Your task to perform on an android device: Search for a cheap bike on Walmart Image 0: 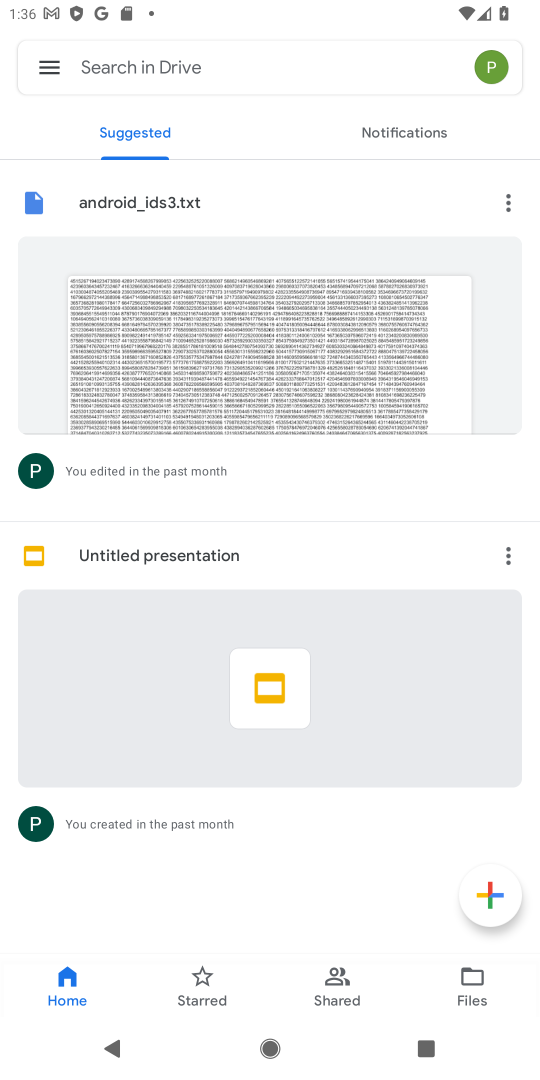
Step 0: press home button
Your task to perform on an android device: Search for a cheap bike on Walmart Image 1: 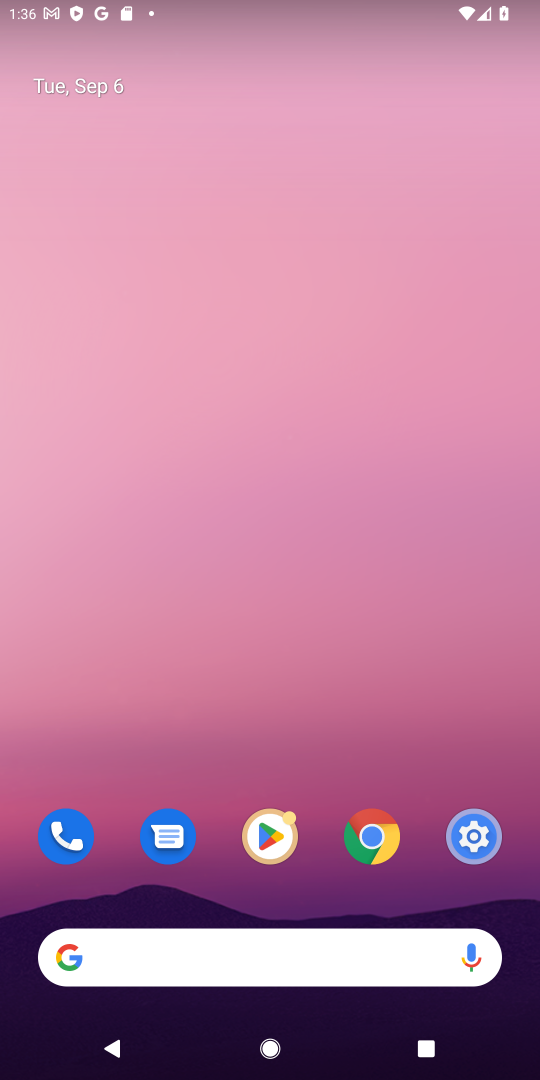
Step 1: click (220, 962)
Your task to perform on an android device: Search for a cheap bike on Walmart Image 2: 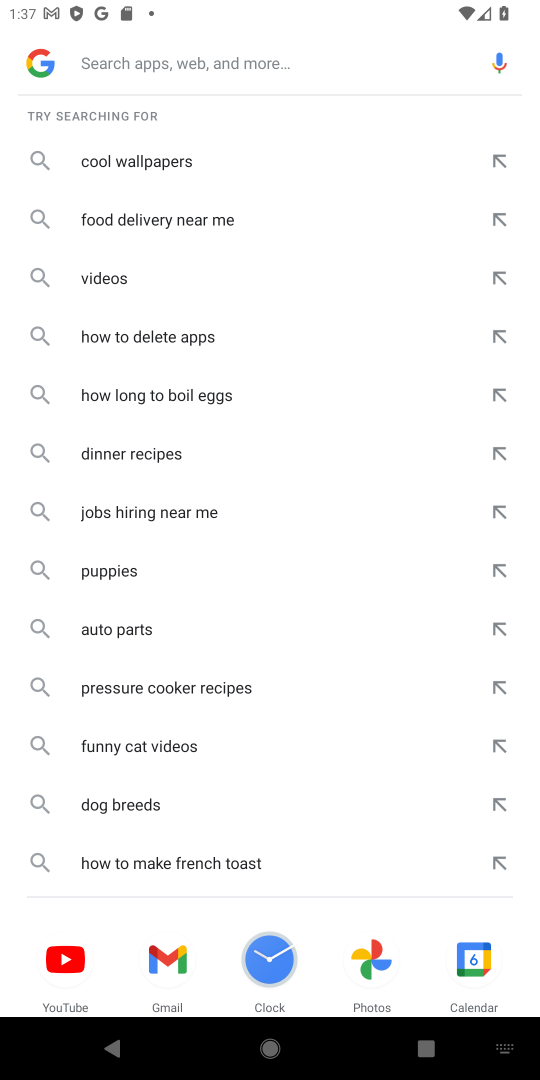
Step 2: type "walmart"
Your task to perform on an android device: Search for a cheap bike on Walmart Image 3: 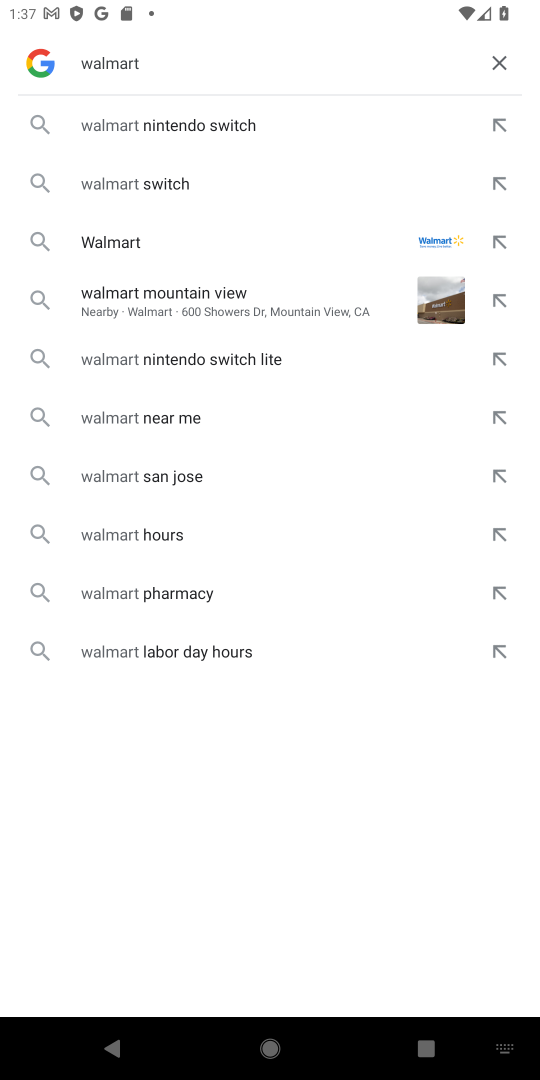
Step 3: click (114, 238)
Your task to perform on an android device: Search for a cheap bike on Walmart Image 4: 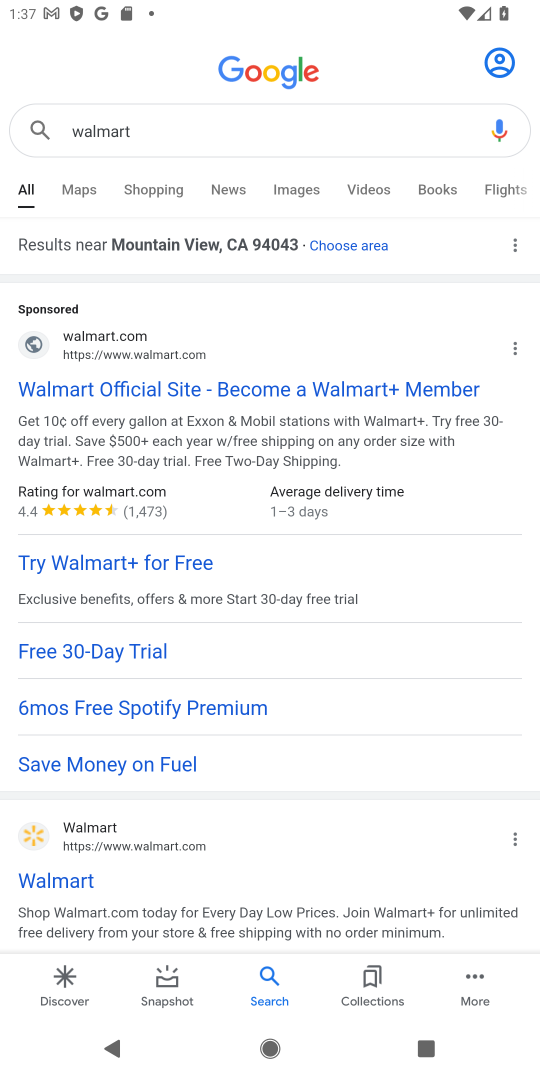
Step 4: click (54, 878)
Your task to perform on an android device: Search for a cheap bike on Walmart Image 5: 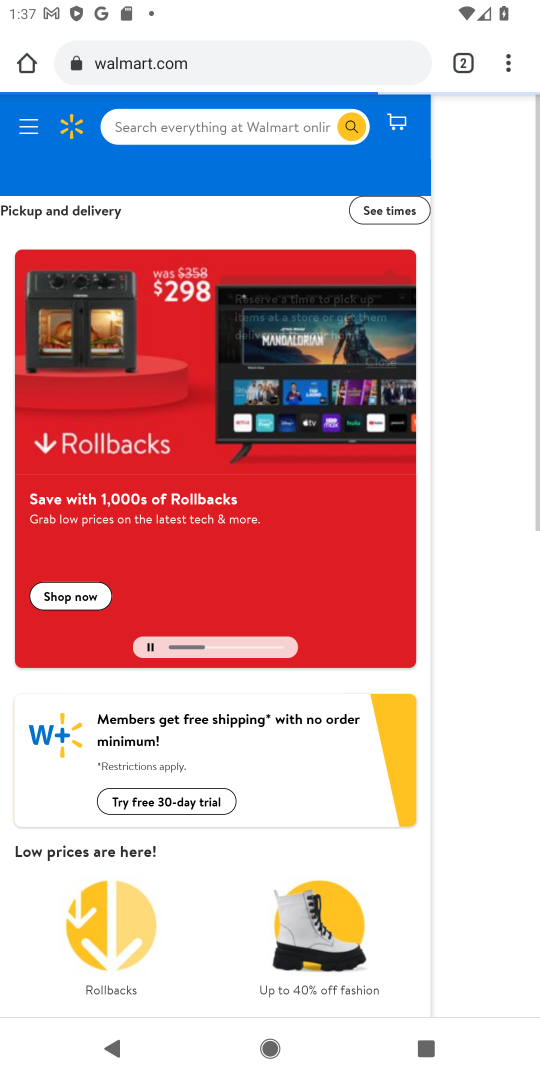
Step 5: click (204, 127)
Your task to perform on an android device: Search for a cheap bike on Walmart Image 6: 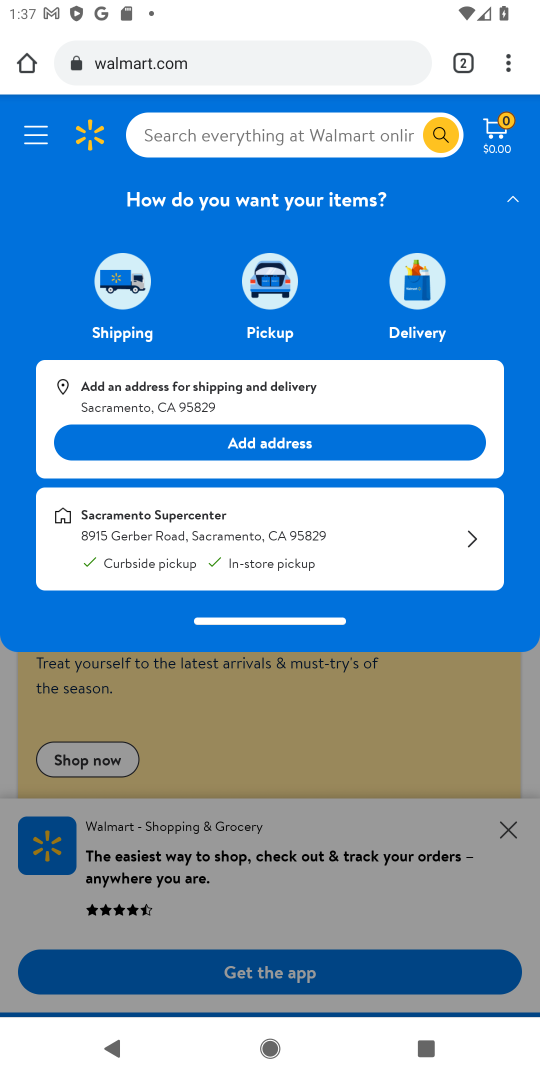
Step 6: click (241, 129)
Your task to perform on an android device: Search for a cheap bike on Walmart Image 7: 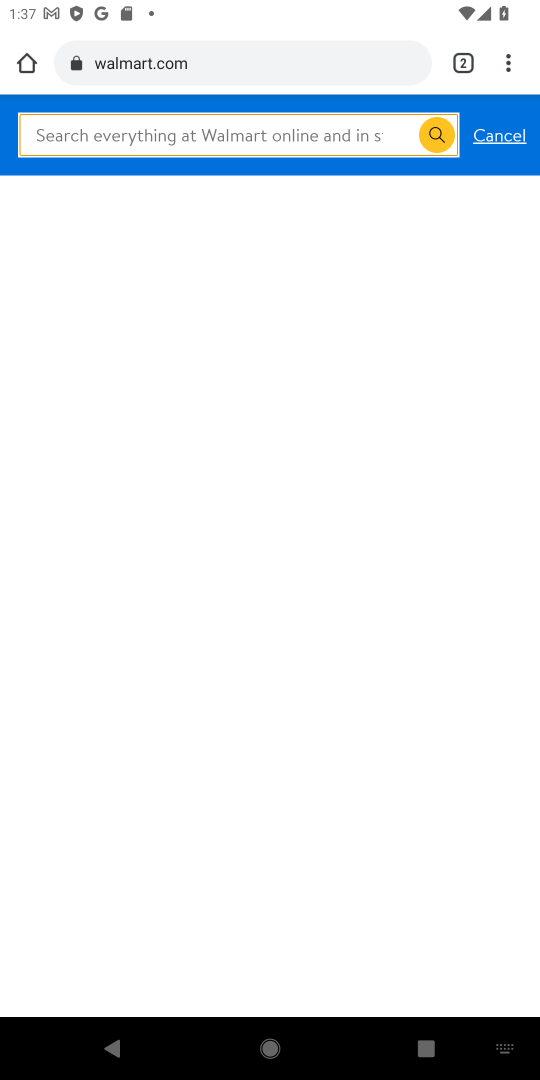
Step 7: type "cheap bike"
Your task to perform on an android device: Search for a cheap bike on Walmart Image 8: 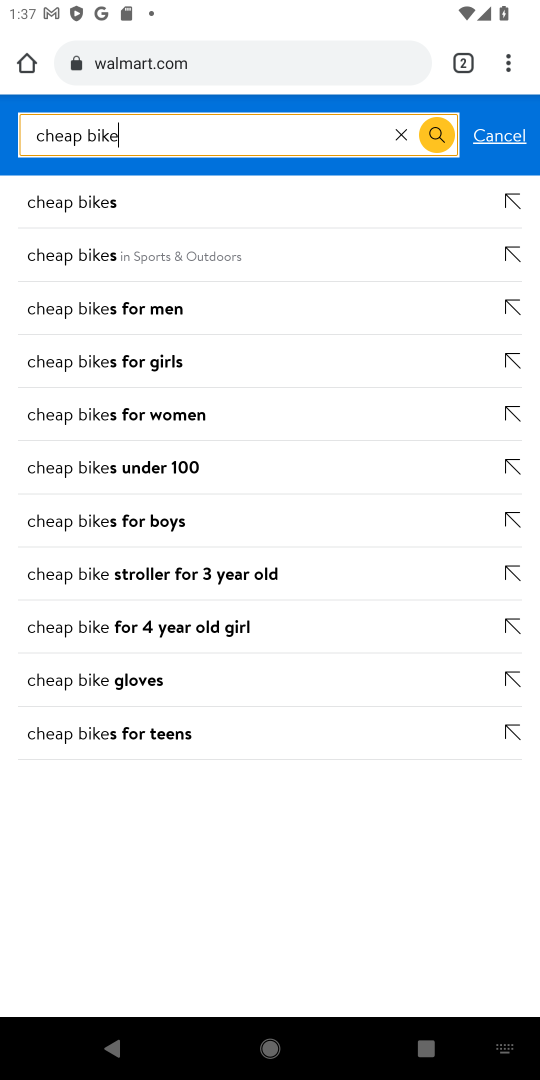
Step 8: click (439, 126)
Your task to perform on an android device: Search for a cheap bike on Walmart Image 9: 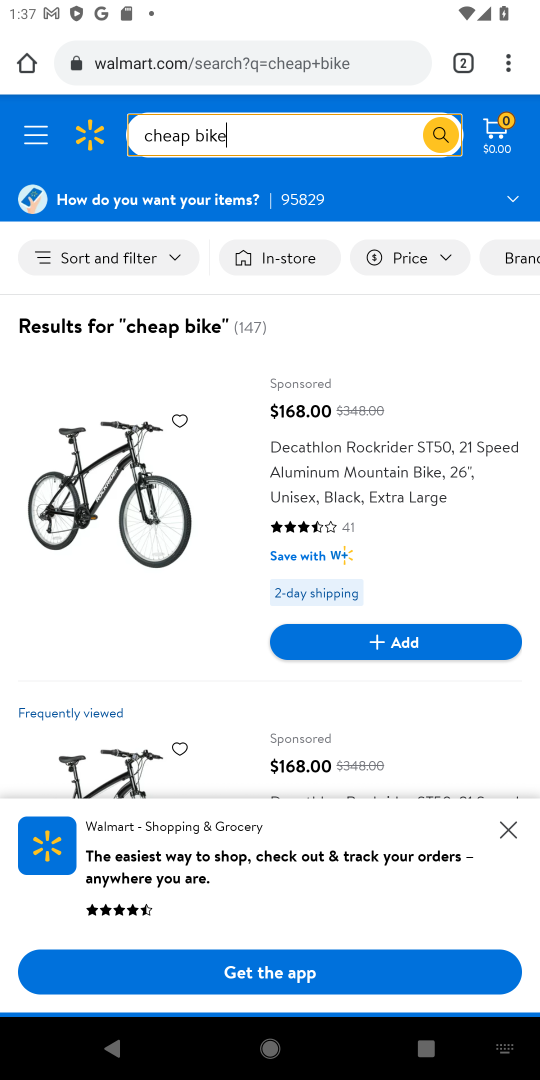
Step 9: click (508, 829)
Your task to perform on an android device: Search for a cheap bike on Walmart Image 10: 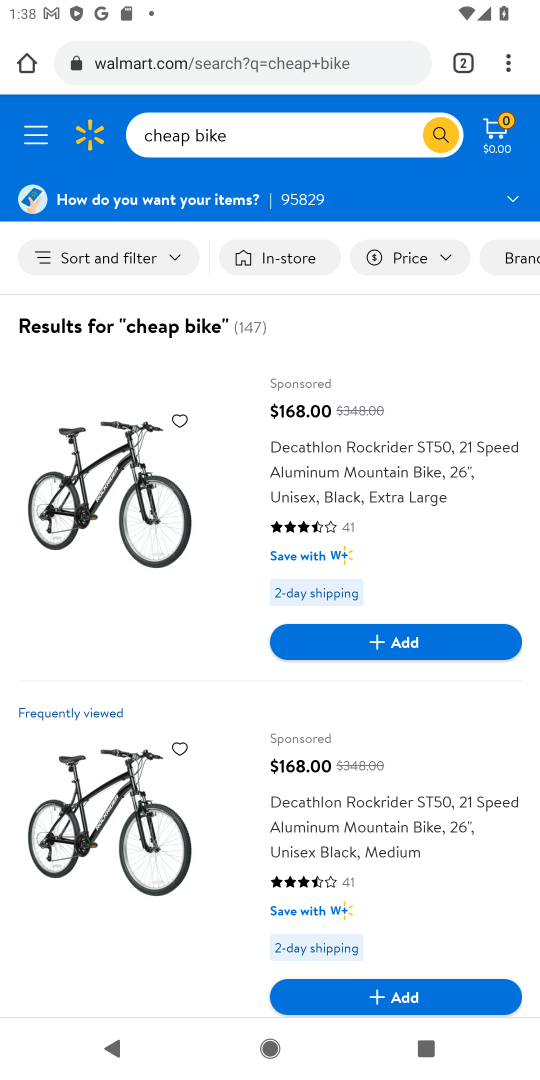
Step 10: task complete